Your task to perform on an android device: show emergency info Image 0: 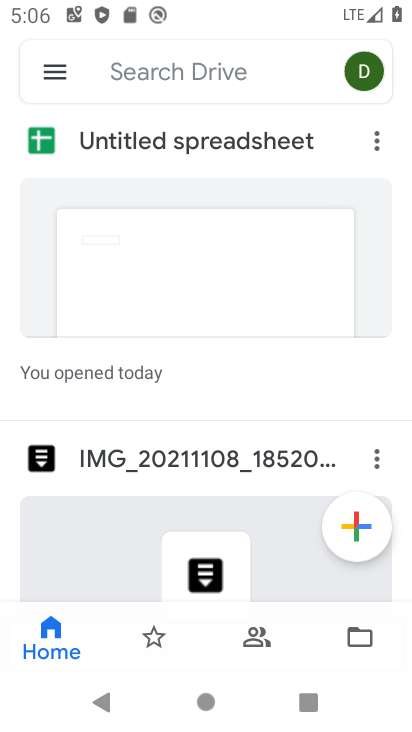
Step 0: press home button
Your task to perform on an android device: show emergency info Image 1: 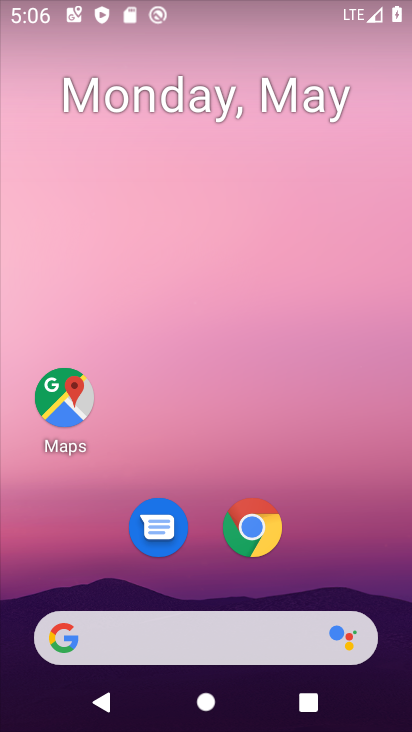
Step 1: drag from (390, 604) to (383, 76)
Your task to perform on an android device: show emergency info Image 2: 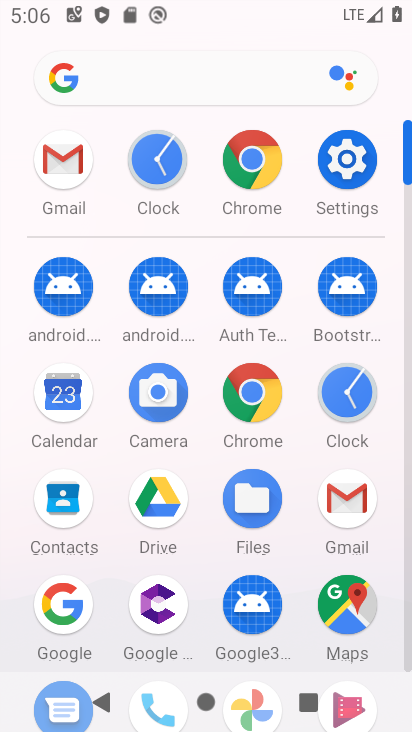
Step 2: click (354, 149)
Your task to perform on an android device: show emergency info Image 3: 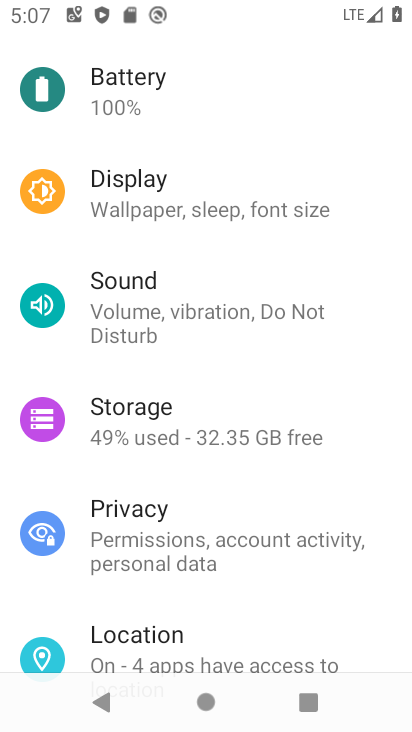
Step 3: drag from (361, 657) to (358, 179)
Your task to perform on an android device: show emergency info Image 4: 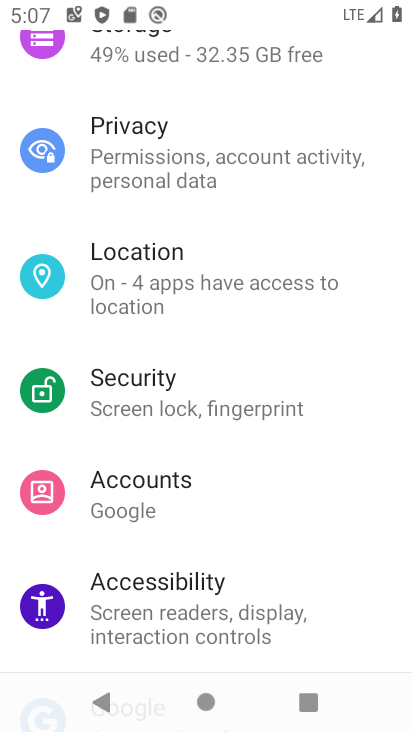
Step 4: drag from (370, 653) to (368, 195)
Your task to perform on an android device: show emergency info Image 5: 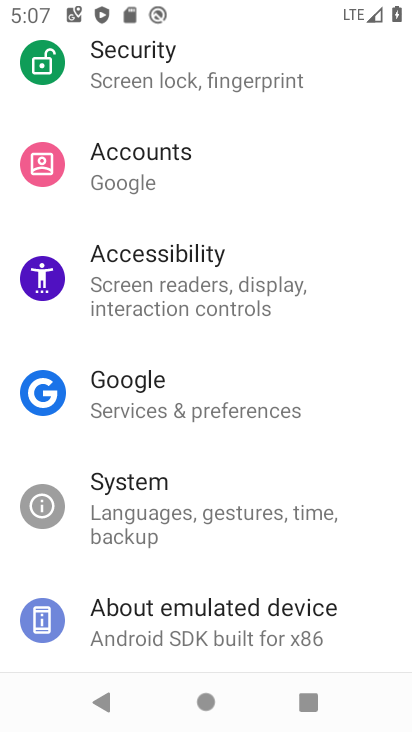
Step 5: click (142, 604)
Your task to perform on an android device: show emergency info Image 6: 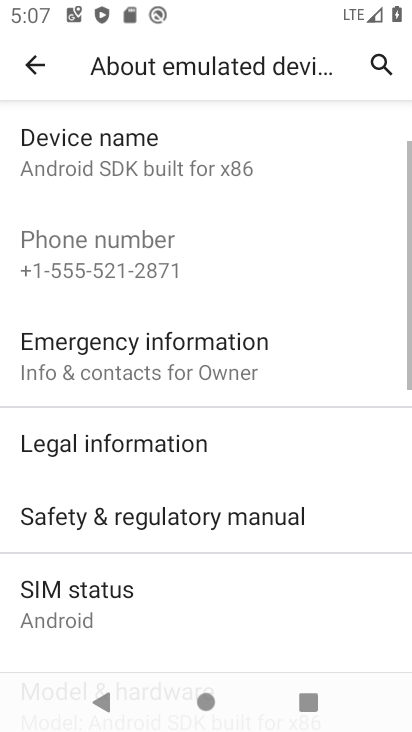
Step 6: click (149, 351)
Your task to perform on an android device: show emergency info Image 7: 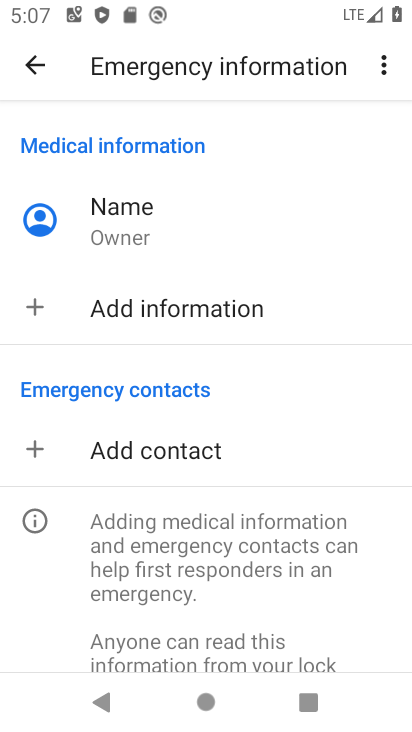
Step 7: task complete